Your task to perform on an android device: open app "Adobe Acrobat Reader" (install if not already installed) Image 0: 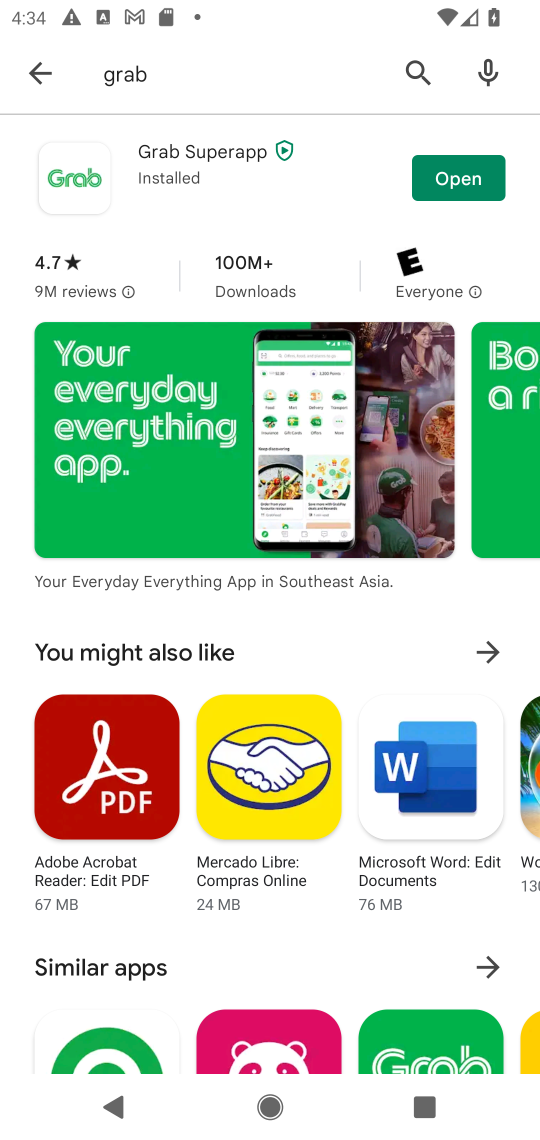
Step 0: click (162, 79)
Your task to perform on an android device: open app "Adobe Acrobat Reader" (install if not already installed) Image 1: 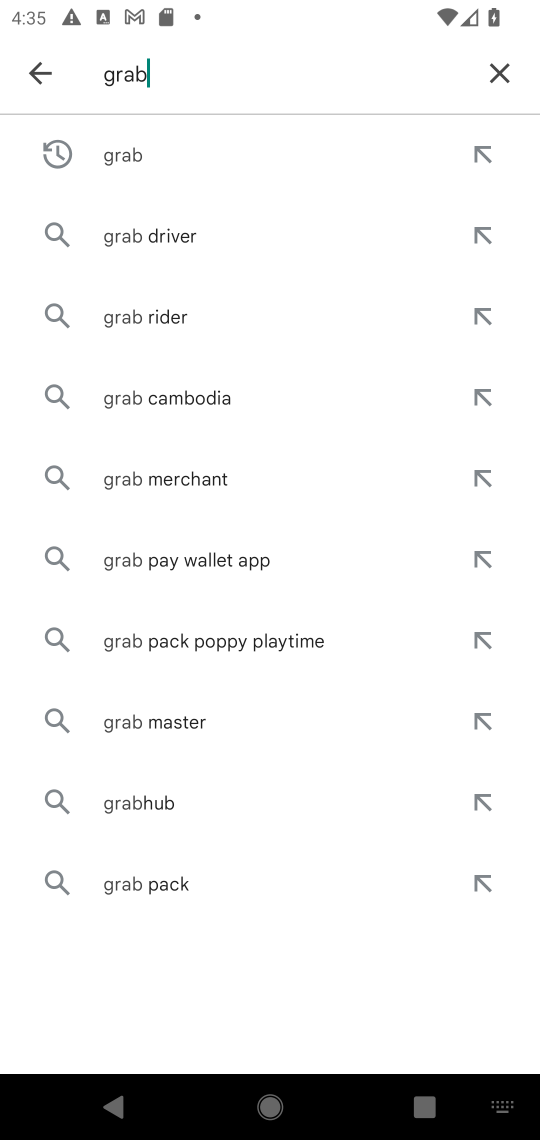
Step 1: click (510, 76)
Your task to perform on an android device: open app "Adobe Acrobat Reader" (install if not already installed) Image 2: 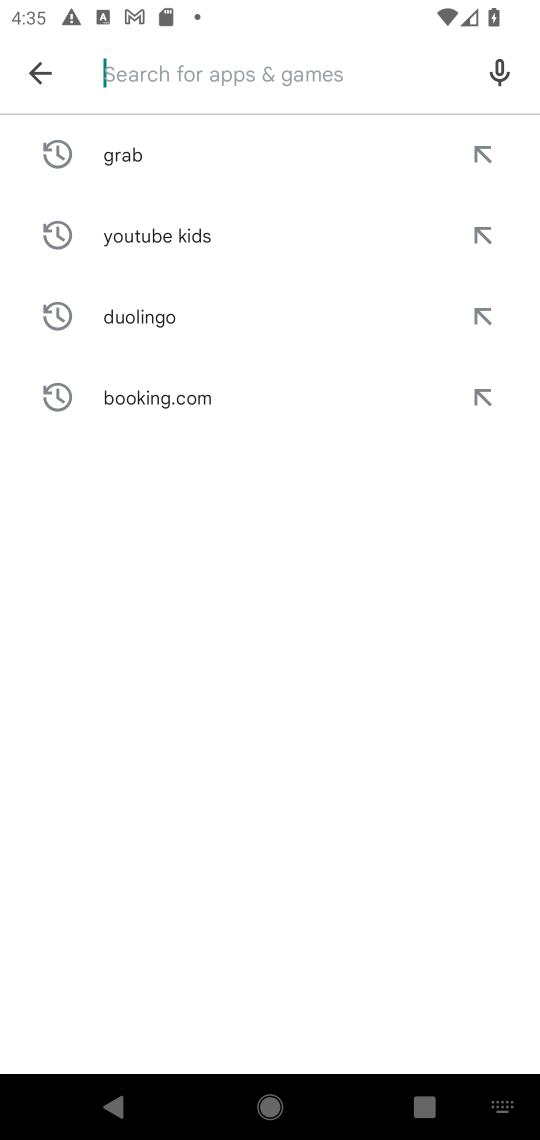
Step 2: type "Adobe Acrobat Reader"
Your task to perform on an android device: open app "Adobe Acrobat Reader" (install if not already installed) Image 3: 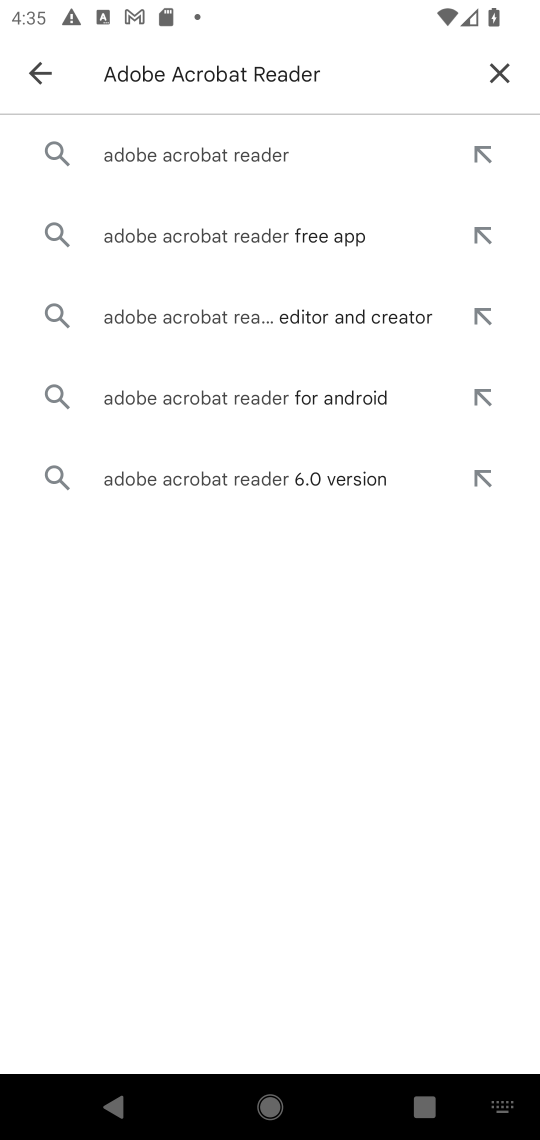
Step 3: click (204, 150)
Your task to perform on an android device: open app "Adobe Acrobat Reader" (install if not already installed) Image 4: 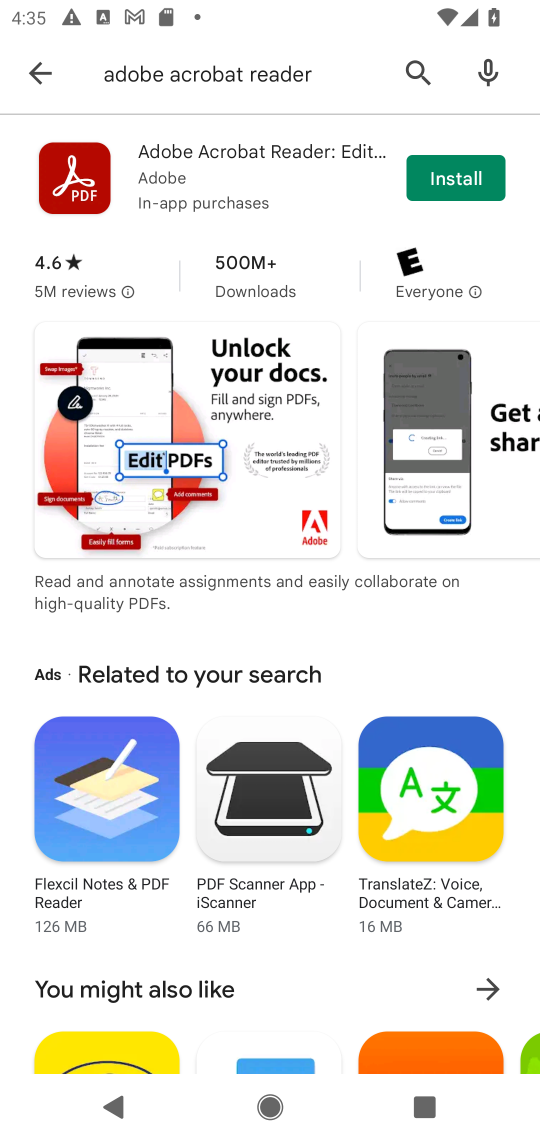
Step 4: click (444, 184)
Your task to perform on an android device: open app "Adobe Acrobat Reader" (install if not already installed) Image 5: 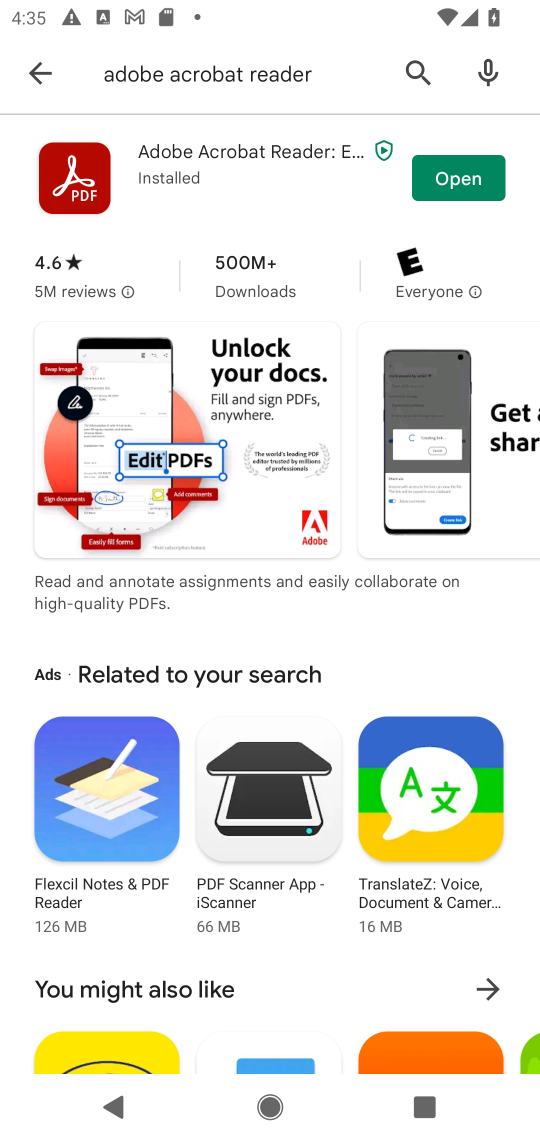
Step 5: click (461, 182)
Your task to perform on an android device: open app "Adobe Acrobat Reader" (install if not already installed) Image 6: 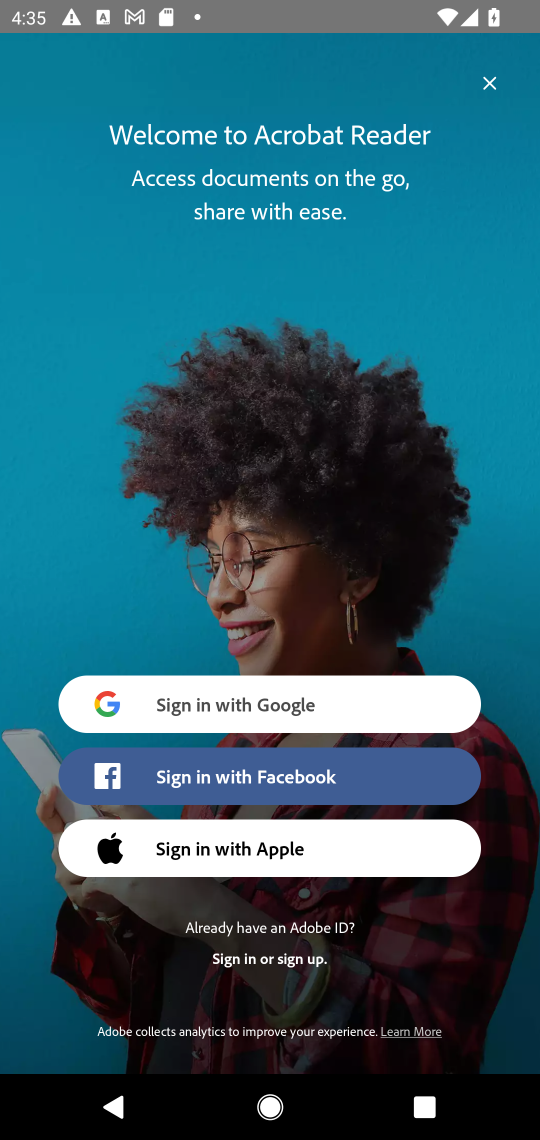
Step 6: click (322, 705)
Your task to perform on an android device: open app "Adobe Acrobat Reader" (install if not already installed) Image 7: 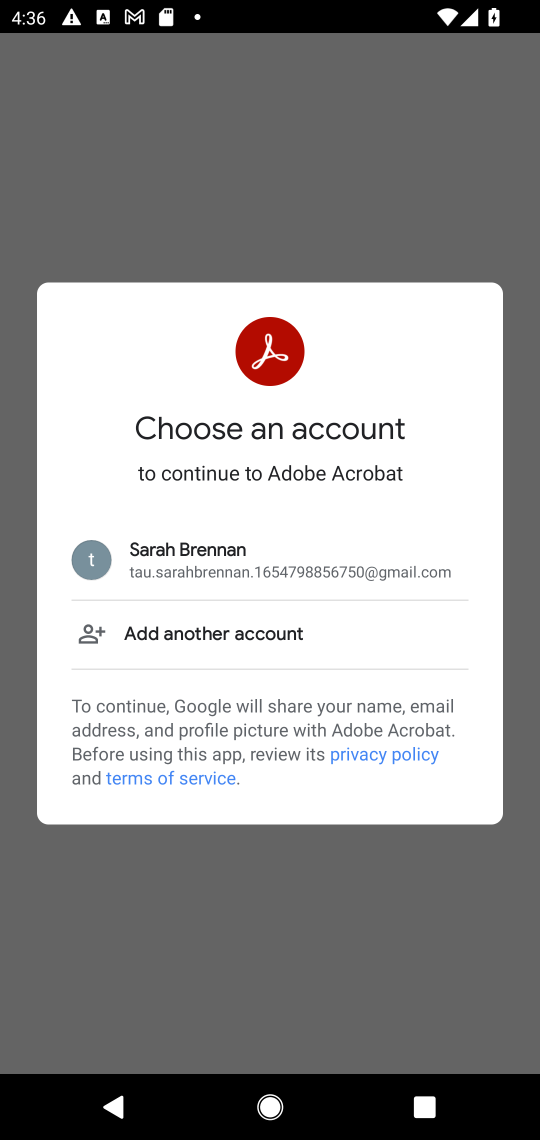
Step 7: click (283, 579)
Your task to perform on an android device: open app "Adobe Acrobat Reader" (install if not already installed) Image 8: 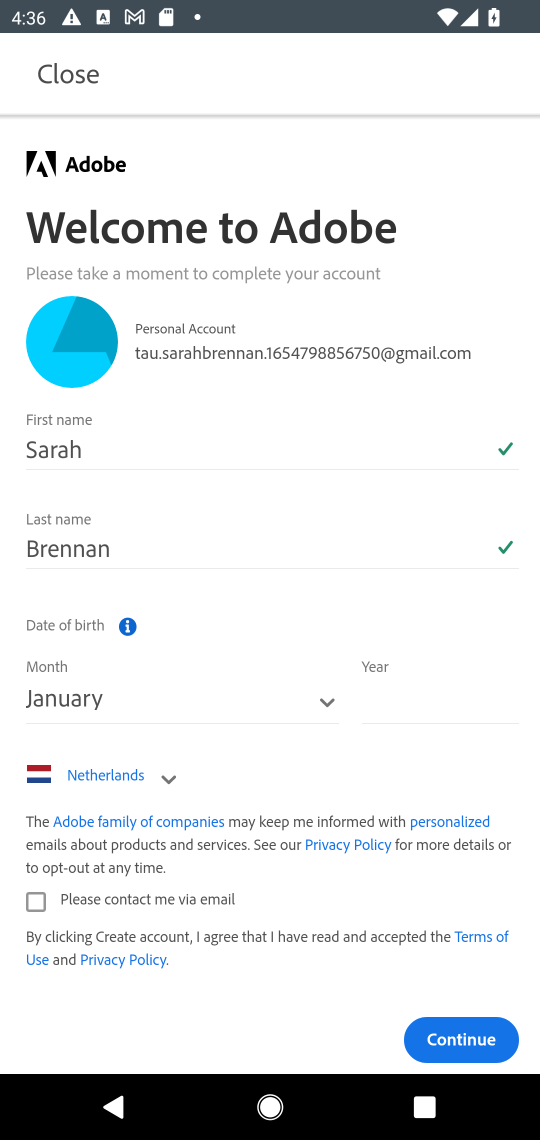
Step 8: click (479, 1042)
Your task to perform on an android device: open app "Adobe Acrobat Reader" (install if not already installed) Image 9: 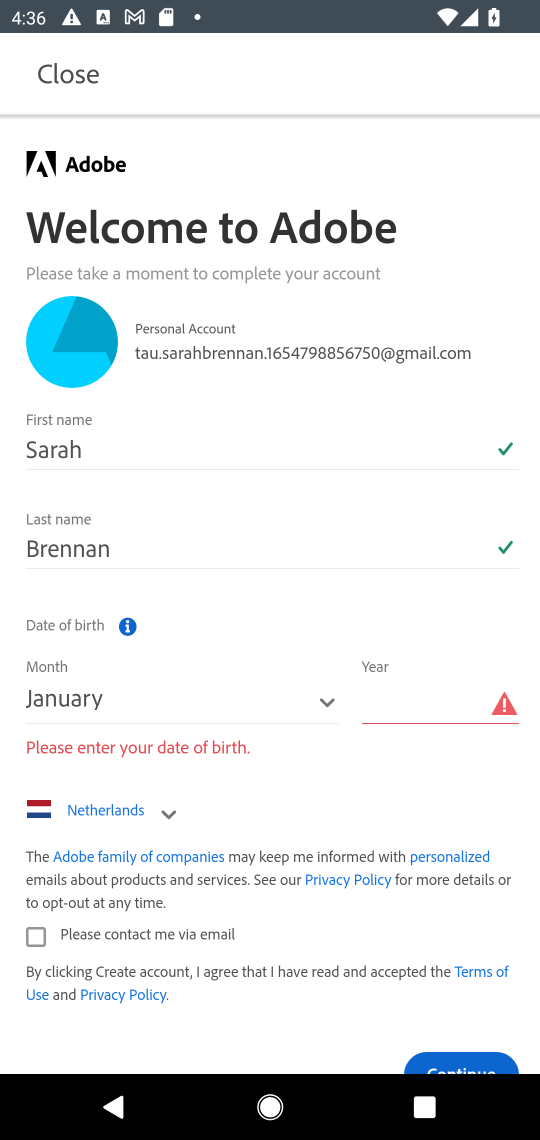
Step 9: task complete